Your task to perform on an android device: add a contact in the contacts app Image 0: 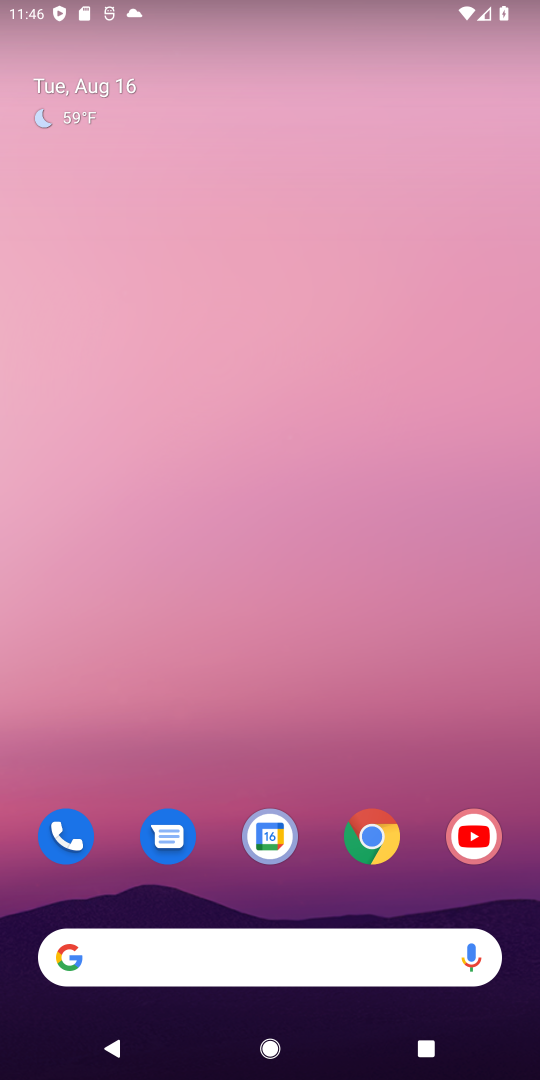
Step 0: drag from (246, 958) to (298, 299)
Your task to perform on an android device: add a contact in the contacts app Image 1: 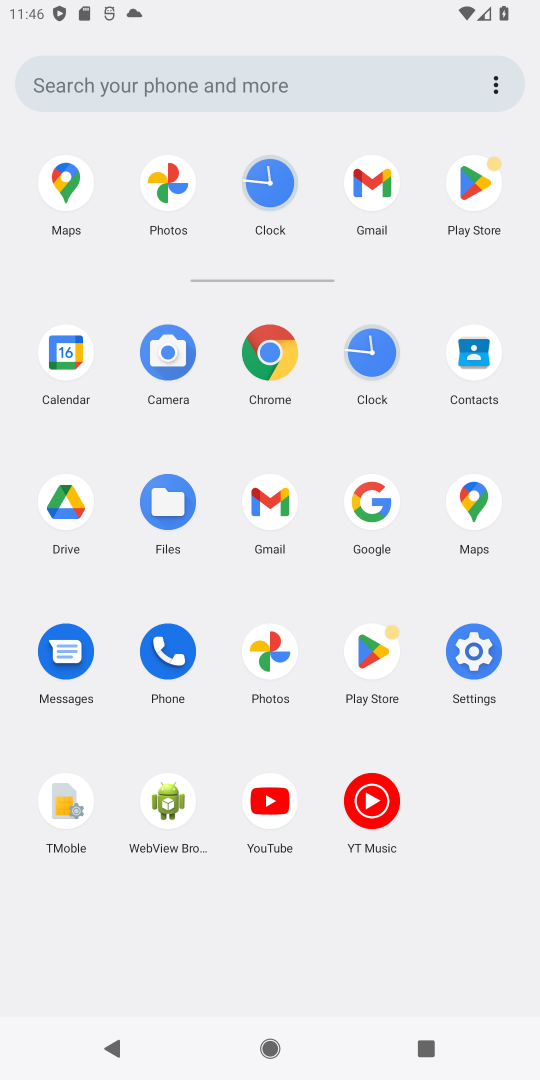
Step 1: click (470, 363)
Your task to perform on an android device: add a contact in the contacts app Image 2: 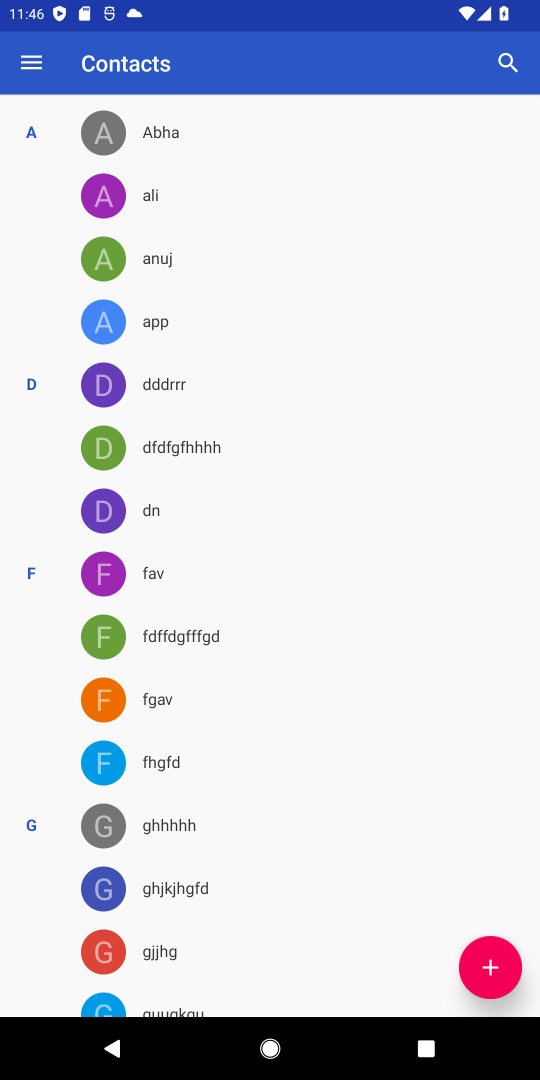
Step 2: click (488, 967)
Your task to perform on an android device: add a contact in the contacts app Image 3: 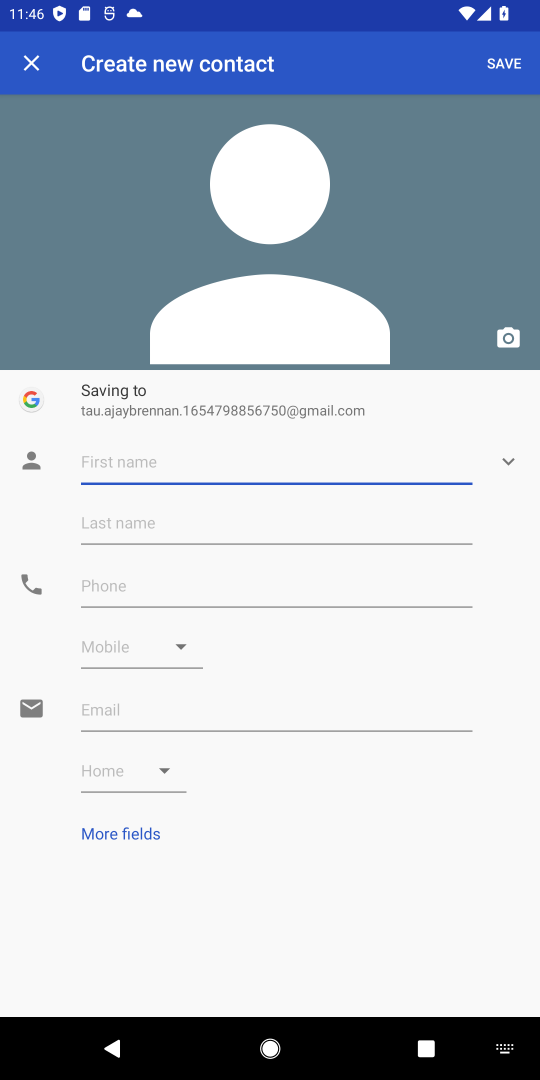
Step 3: type "Jairam"
Your task to perform on an android device: add a contact in the contacts app Image 4: 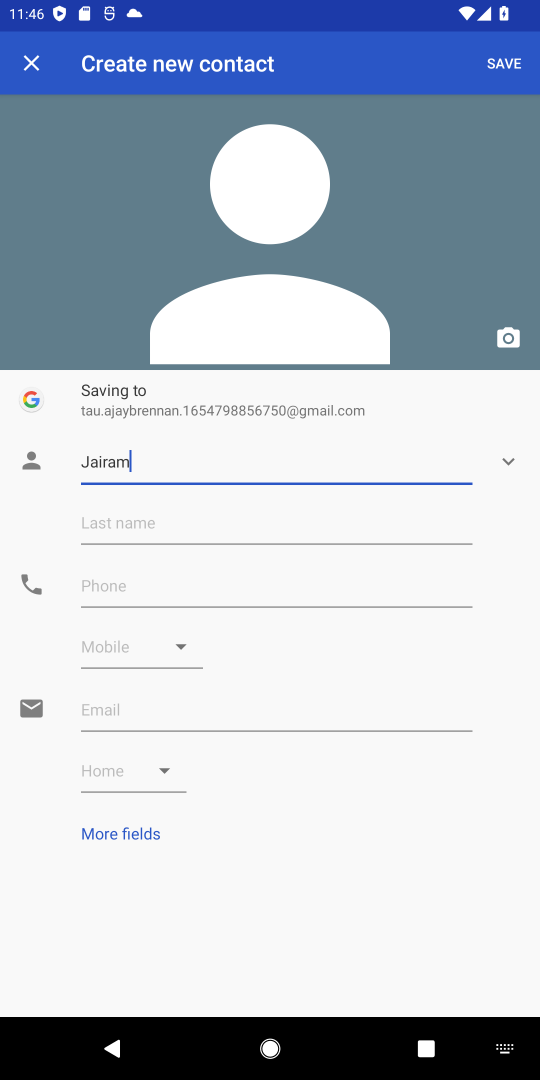
Step 4: click (239, 530)
Your task to perform on an android device: add a contact in the contacts app Image 5: 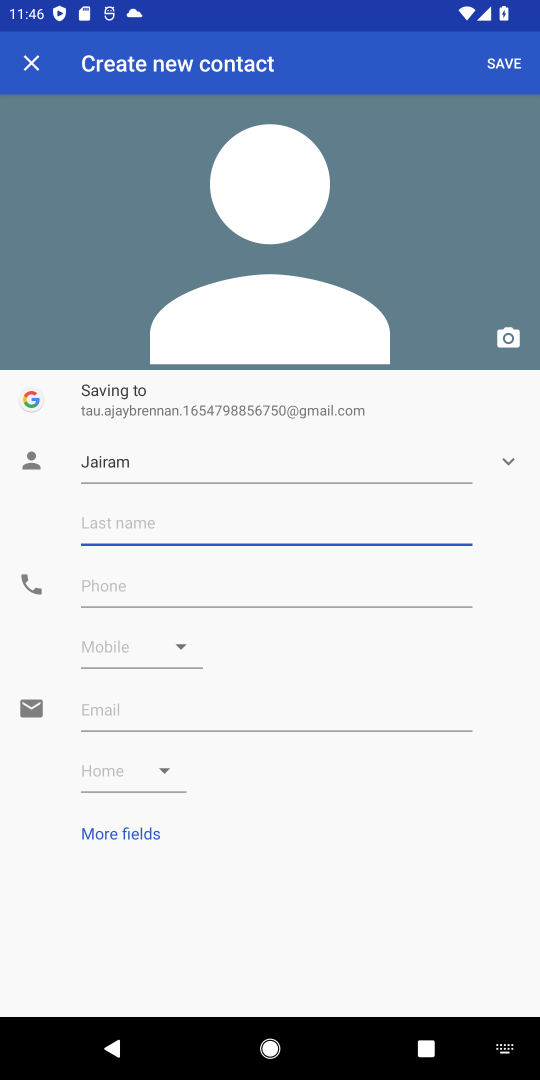
Step 5: type "Thakur"
Your task to perform on an android device: add a contact in the contacts app Image 6: 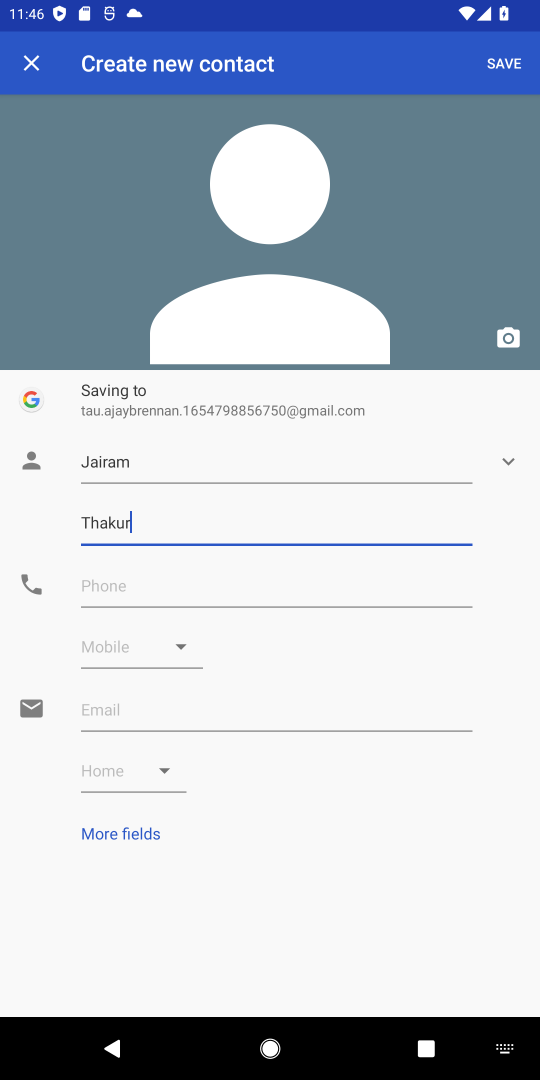
Step 6: click (235, 567)
Your task to perform on an android device: add a contact in the contacts app Image 7: 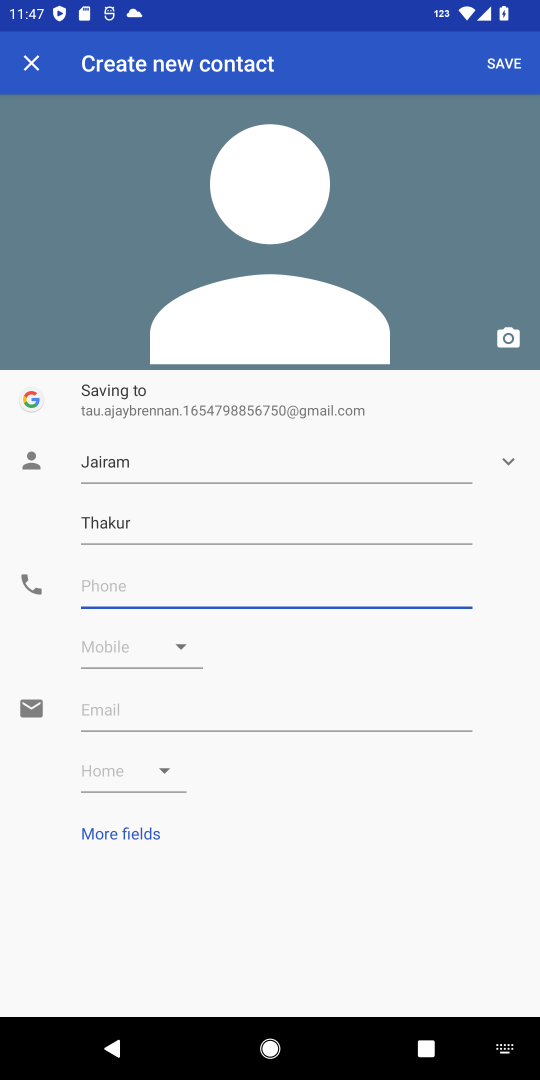
Step 7: type "0987123746"
Your task to perform on an android device: add a contact in the contacts app Image 8: 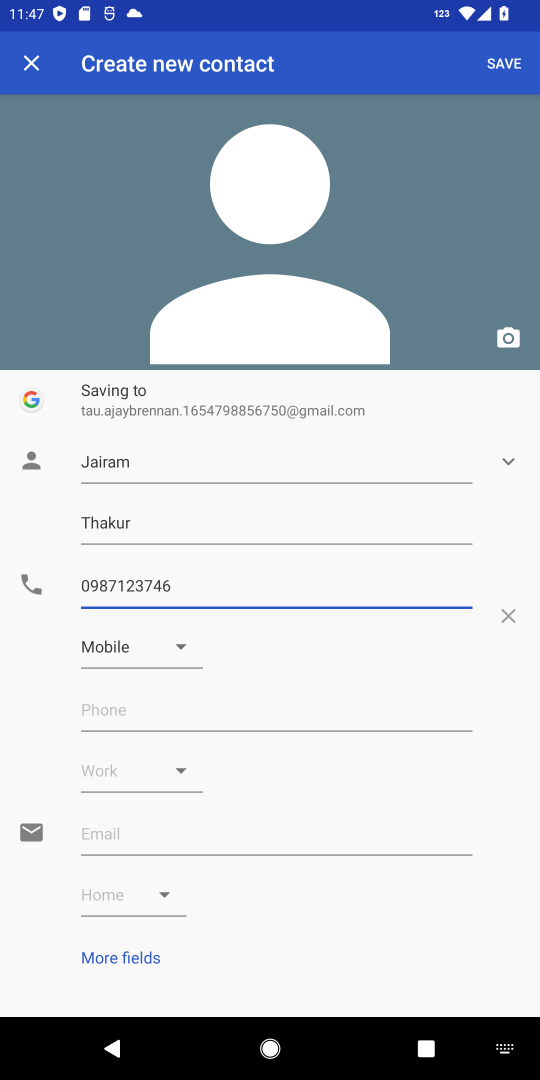
Step 8: click (516, 59)
Your task to perform on an android device: add a contact in the contacts app Image 9: 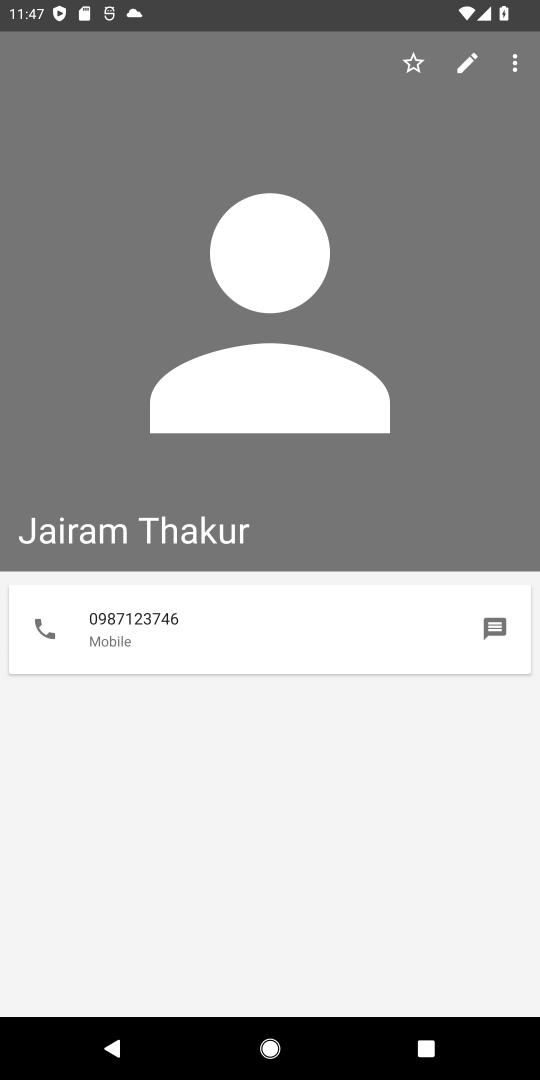
Step 9: task complete